Your task to perform on an android device: Open ESPN.com Image 0: 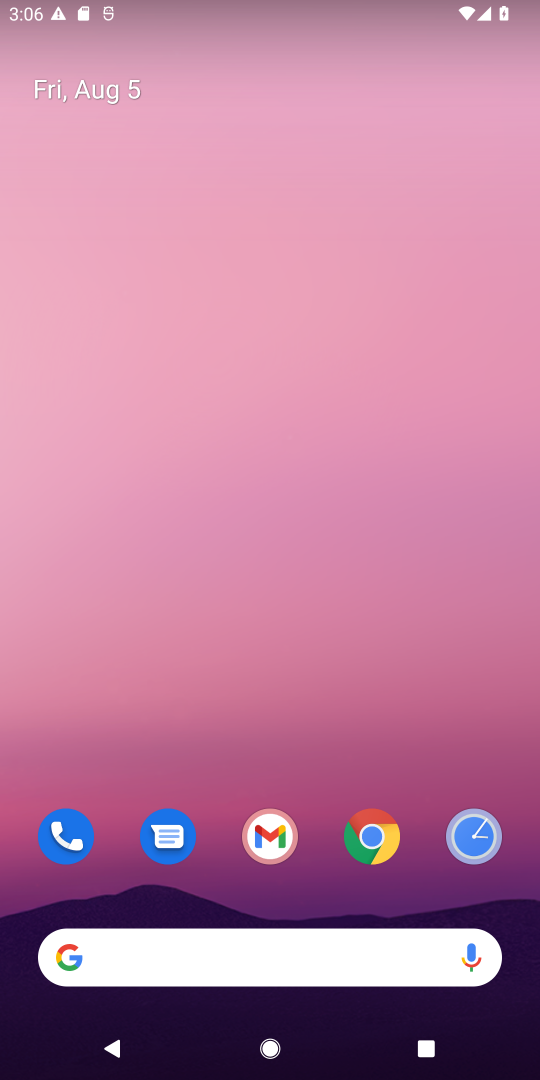
Step 0: drag from (328, 850) to (351, 57)
Your task to perform on an android device: Open ESPN.com Image 1: 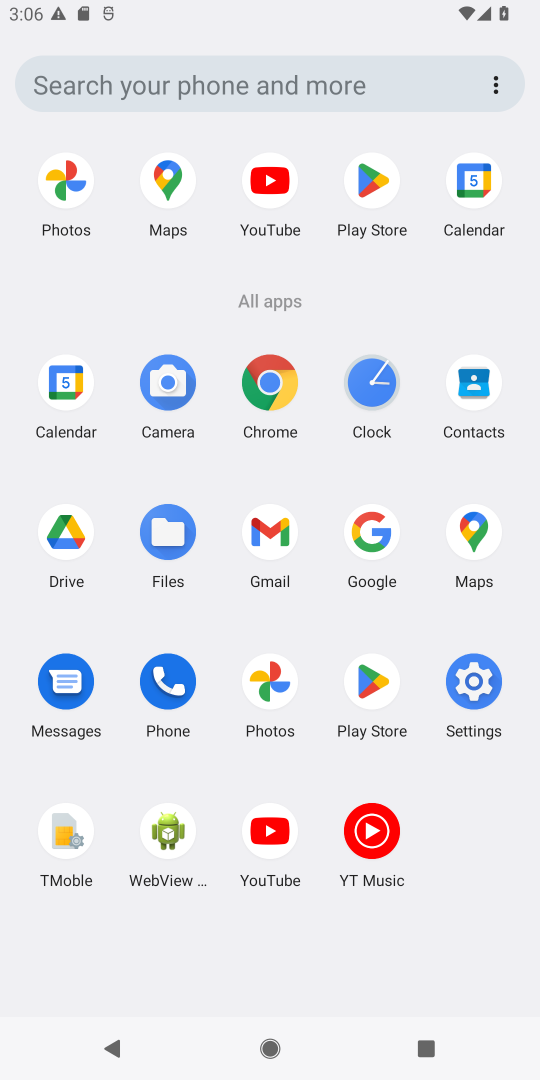
Step 1: click (258, 393)
Your task to perform on an android device: Open ESPN.com Image 2: 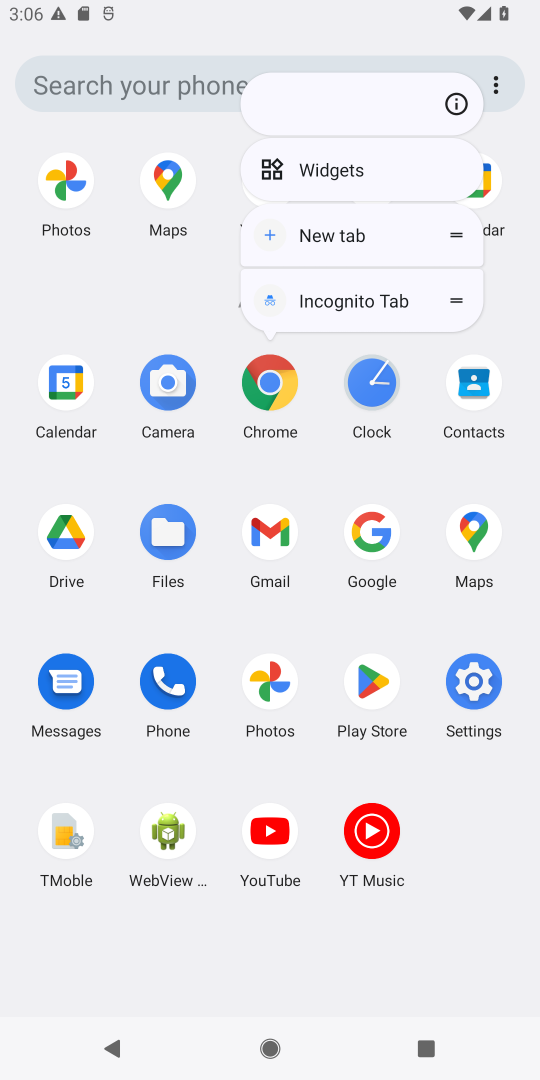
Step 2: click (258, 390)
Your task to perform on an android device: Open ESPN.com Image 3: 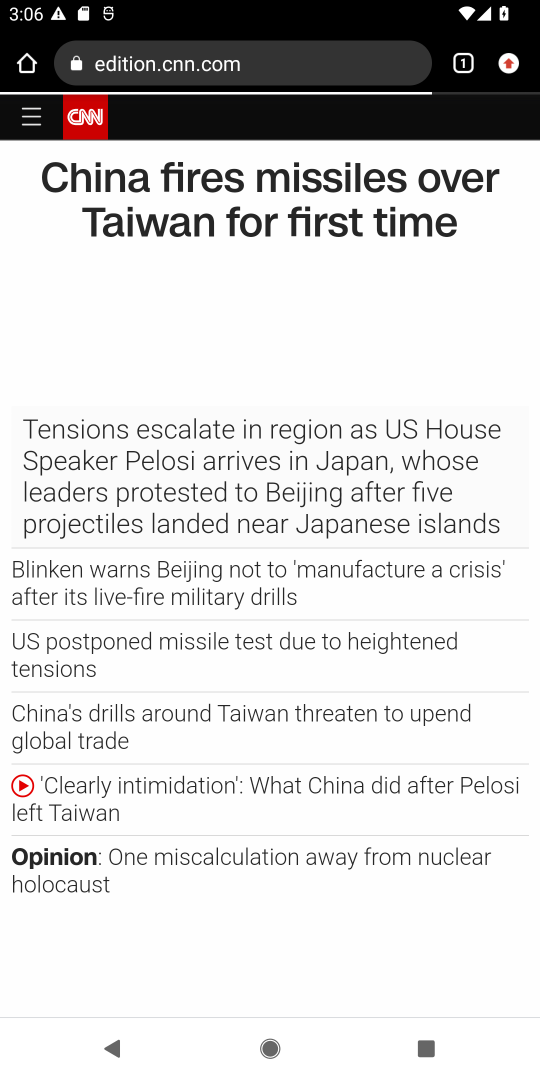
Step 3: click (222, 69)
Your task to perform on an android device: Open ESPN.com Image 4: 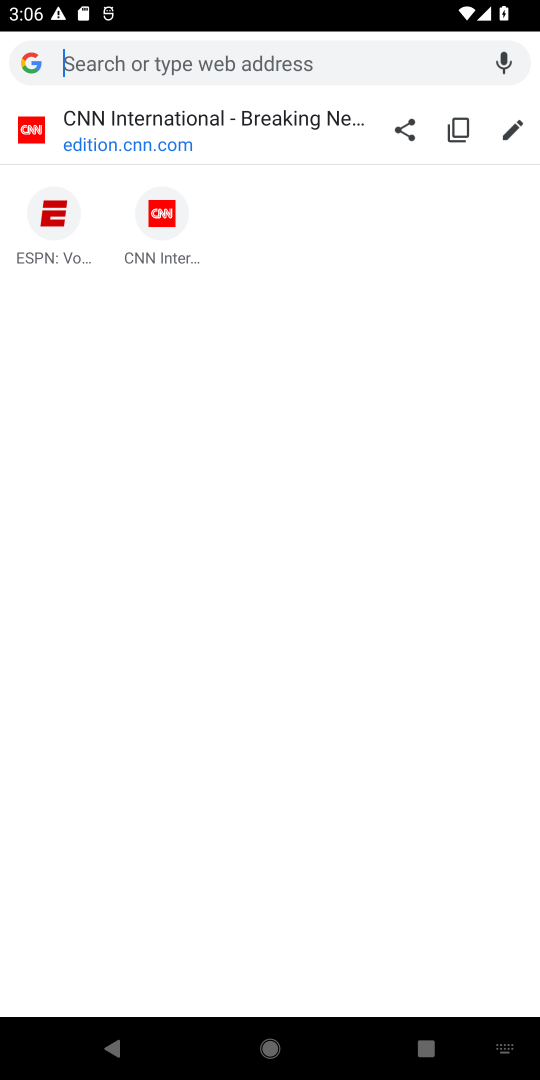
Step 4: click (51, 223)
Your task to perform on an android device: Open ESPN.com Image 5: 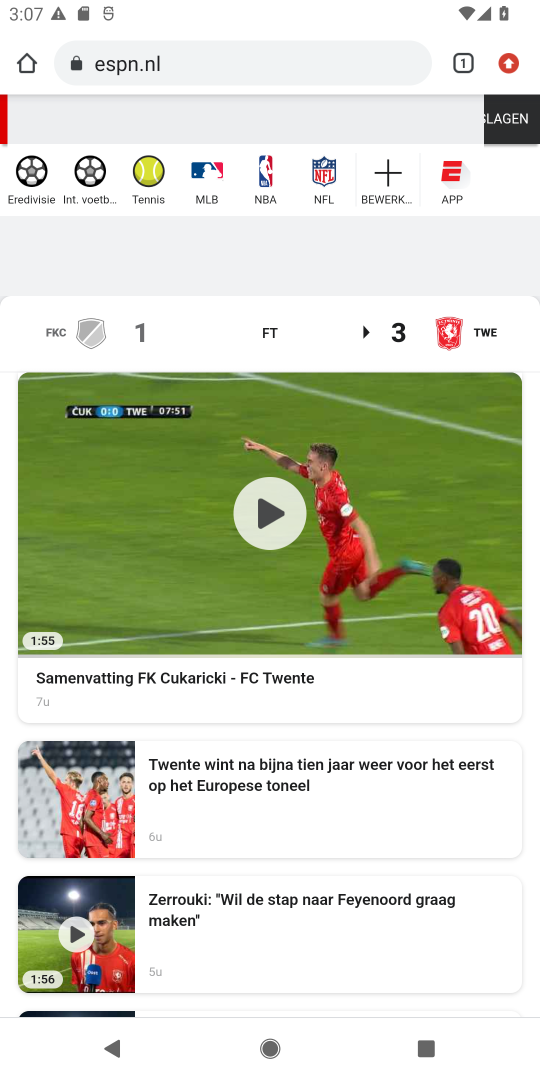
Step 5: task complete